Your task to perform on an android device: Go to eBay Image 0: 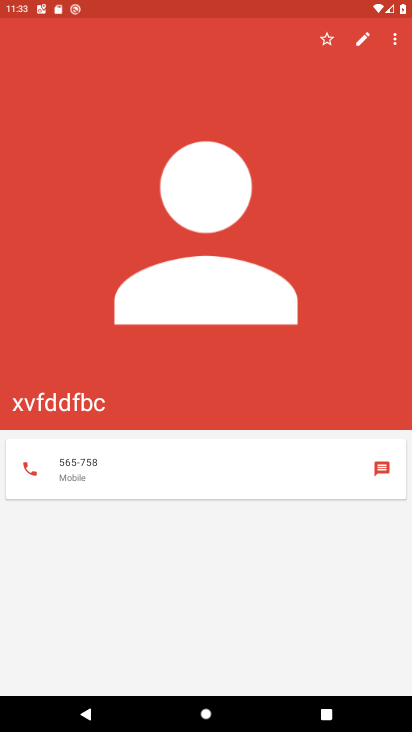
Step 0: press home button
Your task to perform on an android device: Go to eBay Image 1: 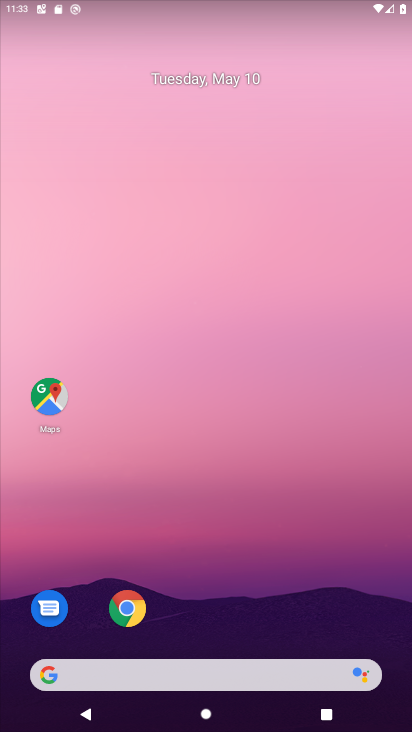
Step 1: drag from (205, 668) to (183, 275)
Your task to perform on an android device: Go to eBay Image 2: 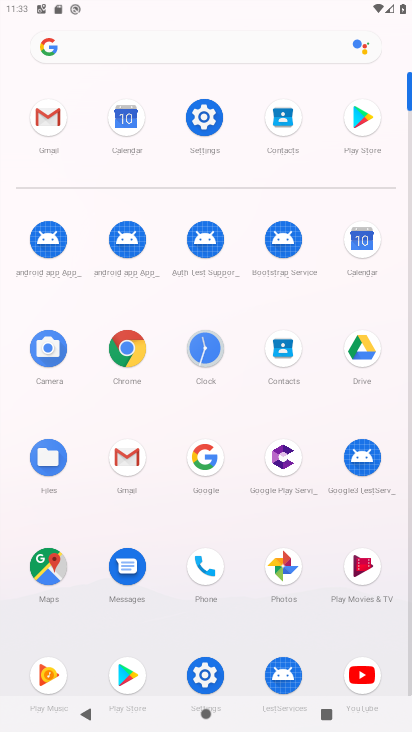
Step 2: click (136, 331)
Your task to perform on an android device: Go to eBay Image 3: 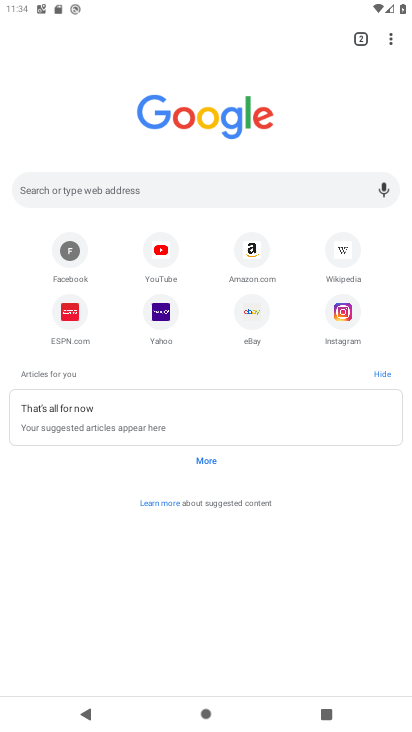
Step 3: click (259, 326)
Your task to perform on an android device: Go to eBay Image 4: 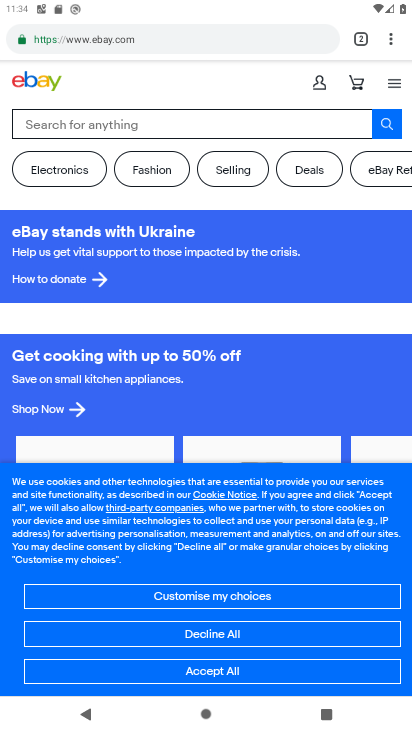
Step 4: task complete